Your task to perform on an android device: turn off airplane mode Image 0: 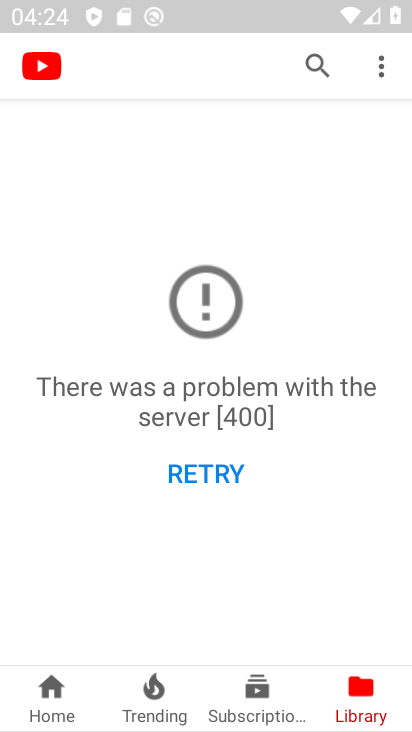
Step 0: press home button
Your task to perform on an android device: turn off airplane mode Image 1: 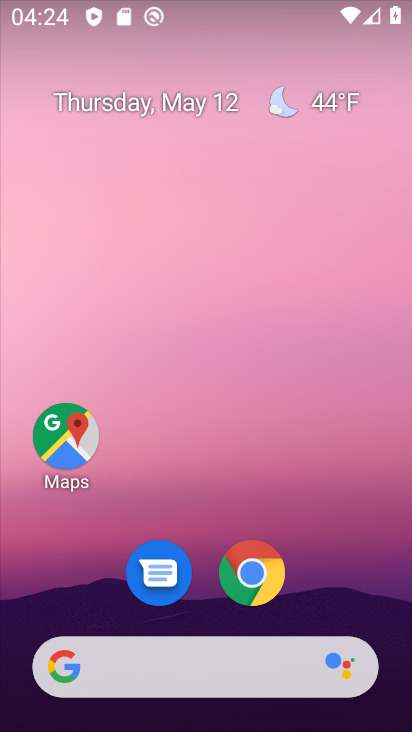
Step 1: drag from (401, 654) to (282, 83)
Your task to perform on an android device: turn off airplane mode Image 2: 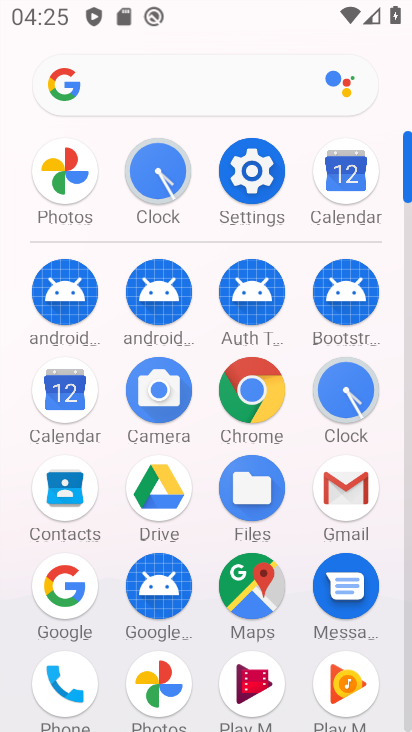
Step 2: click (408, 699)
Your task to perform on an android device: turn off airplane mode Image 3: 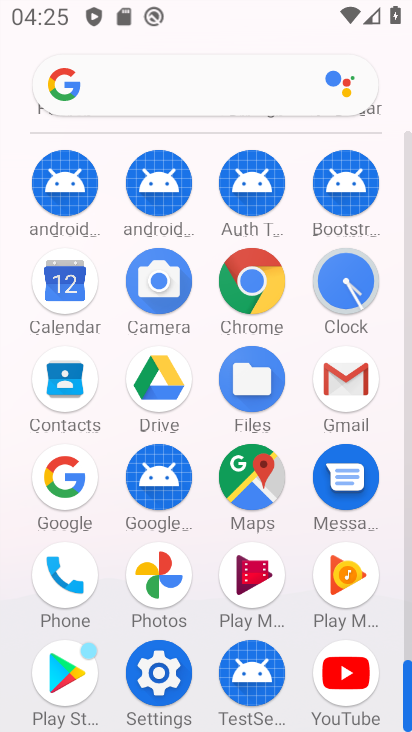
Step 3: click (158, 673)
Your task to perform on an android device: turn off airplane mode Image 4: 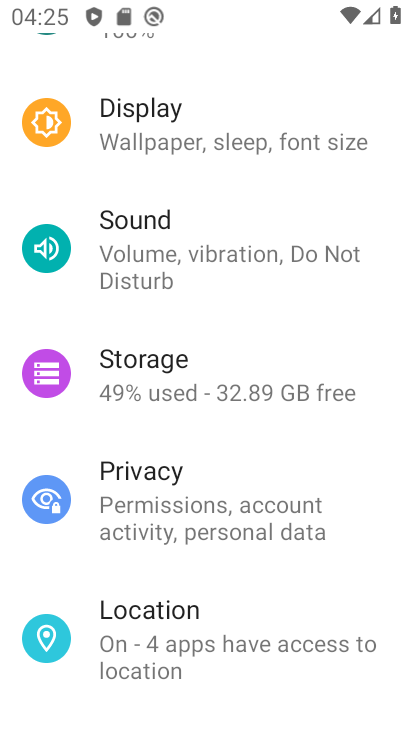
Step 4: drag from (387, 218) to (369, 514)
Your task to perform on an android device: turn off airplane mode Image 5: 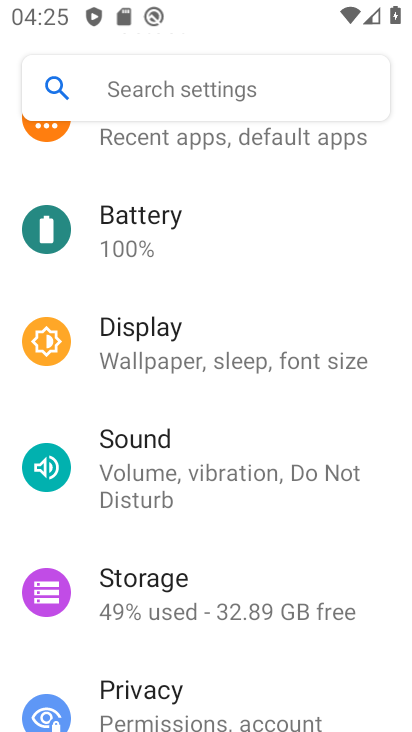
Step 5: drag from (332, 200) to (343, 537)
Your task to perform on an android device: turn off airplane mode Image 6: 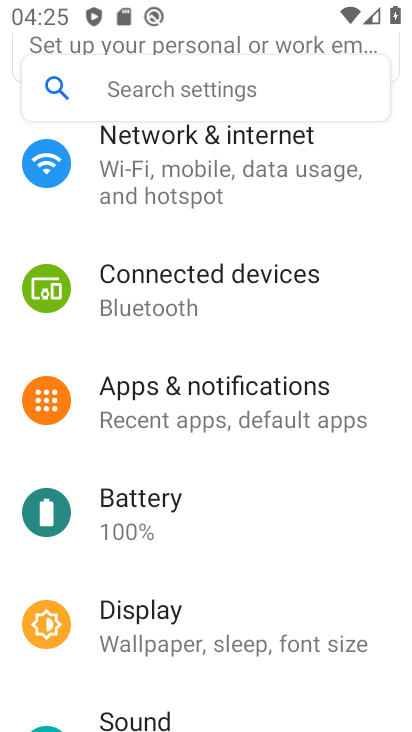
Step 6: click (182, 174)
Your task to perform on an android device: turn off airplane mode Image 7: 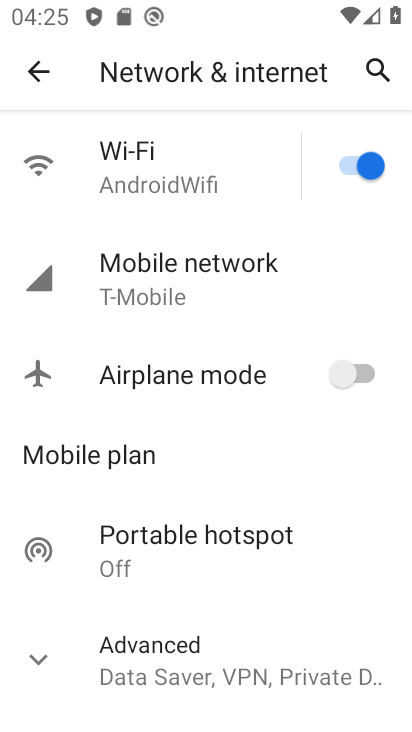
Step 7: task complete